Your task to perform on an android device: toggle improve location accuracy Image 0: 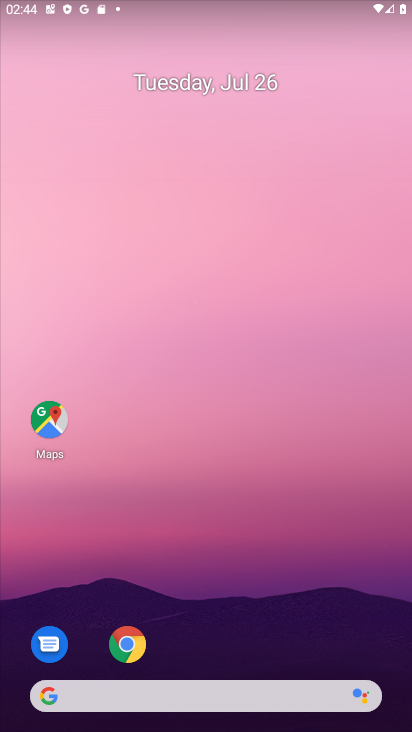
Step 0: drag from (194, 665) to (104, 81)
Your task to perform on an android device: toggle improve location accuracy Image 1: 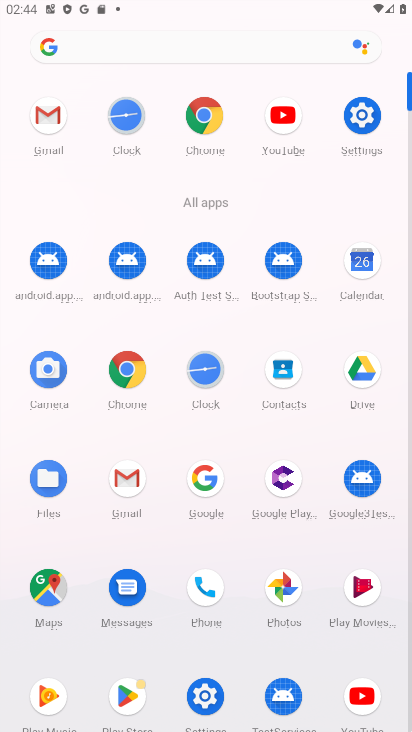
Step 1: click (372, 126)
Your task to perform on an android device: toggle improve location accuracy Image 2: 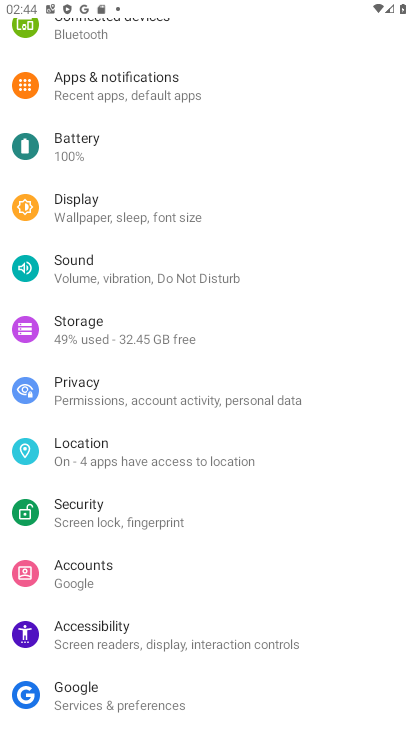
Step 2: click (135, 463)
Your task to perform on an android device: toggle improve location accuracy Image 3: 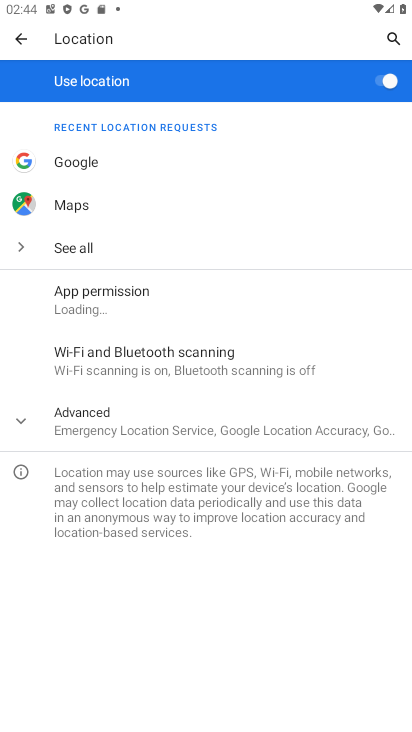
Step 3: click (174, 412)
Your task to perform on an android device: toggle improve location accuracy Image 4: 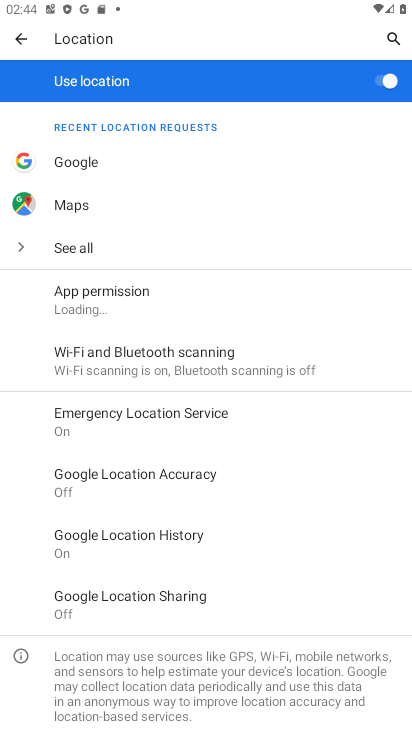
Step 4: click (177, 471)
Your task to perform on an android device: toggle improve location accuracy Image 5: 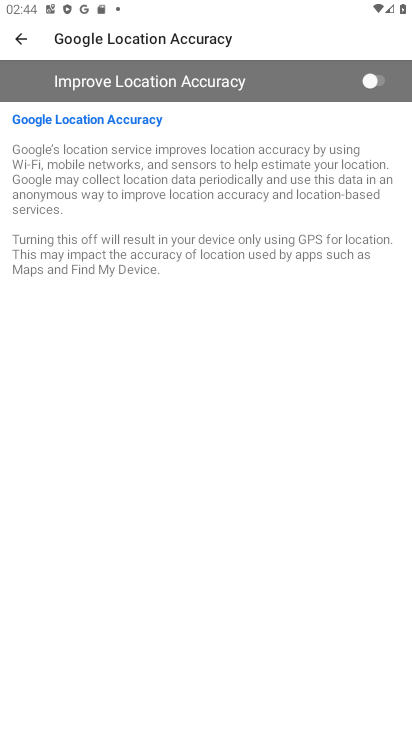
Step 5: click (368, 77)
Your task to perform on an android device: toggle improve location accuracy Image 6: 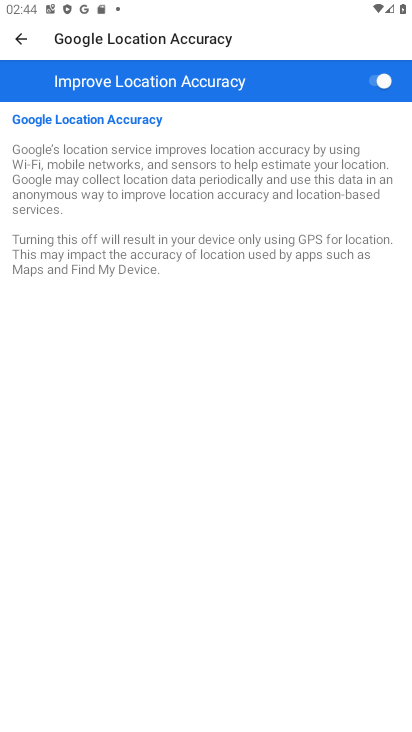
Step 6: task complete